Your task to perform on an android device: change the clock style Image 0: 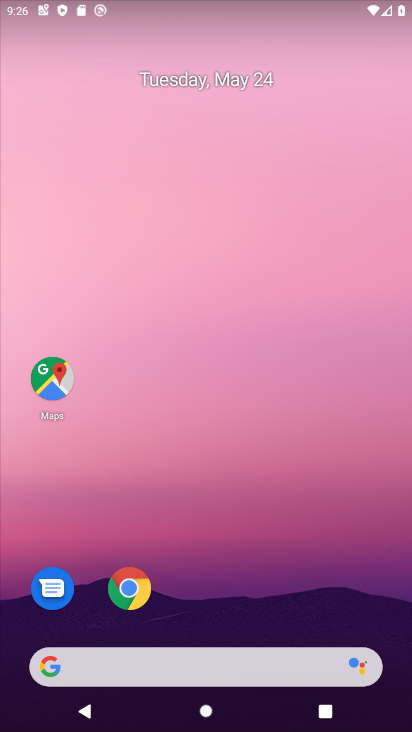
Step 0: drag from (246, 549) to (162, 0)
Your task to perform on an android device: change the clock style Image 1: 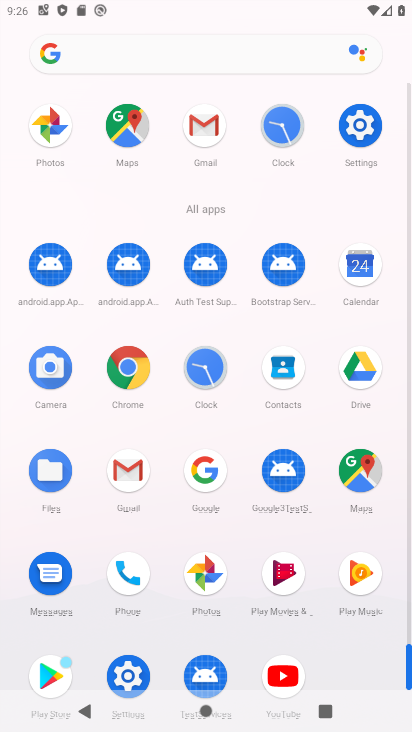
Step 1: drag from (15, 565) to (9, 267)
Your task to perform on an android device: change the clock style Image 2: 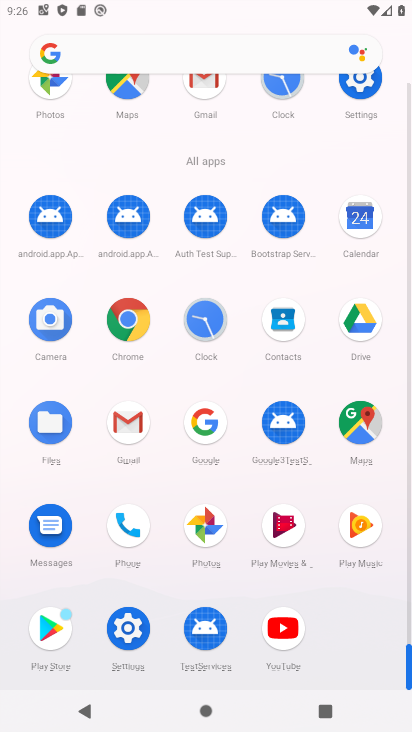
Step 2: click (207, 323)
Your task to perform on an android device: change the clock style Image 3: 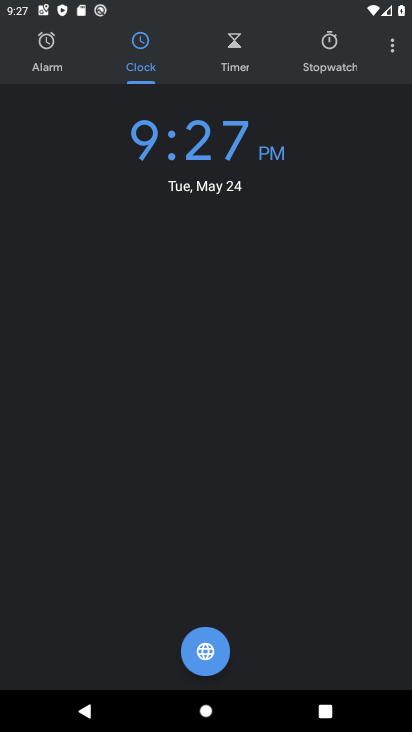
Step 3: drag from (394, 48) to (311, 92)
Your task to perform on an android device: change the clock style Image 4: 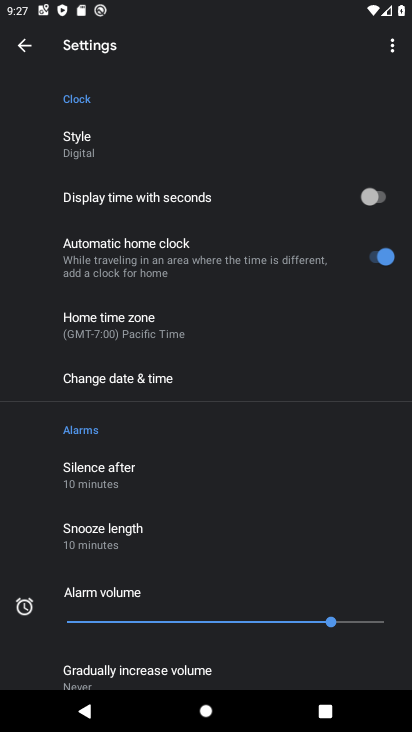
Step 4: click (141, 137)
Your task to perform on an android device: change the clock style Image 5: 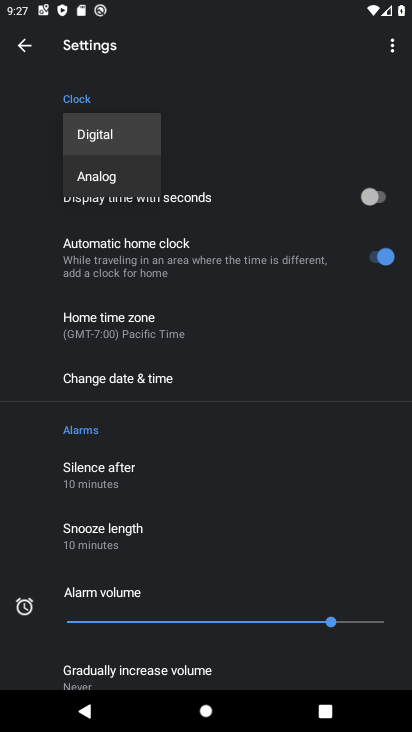
Step 5: click (124, 165)
Your task to perform on an android device: change the clock style Image 6: 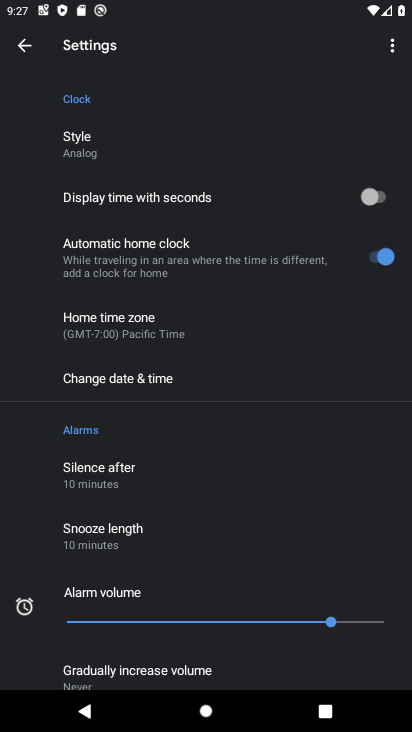
Step 6: task complete